Your task to perform on an android device: open app "Reddit" (install if not already installed) and go to login screen Image 0: 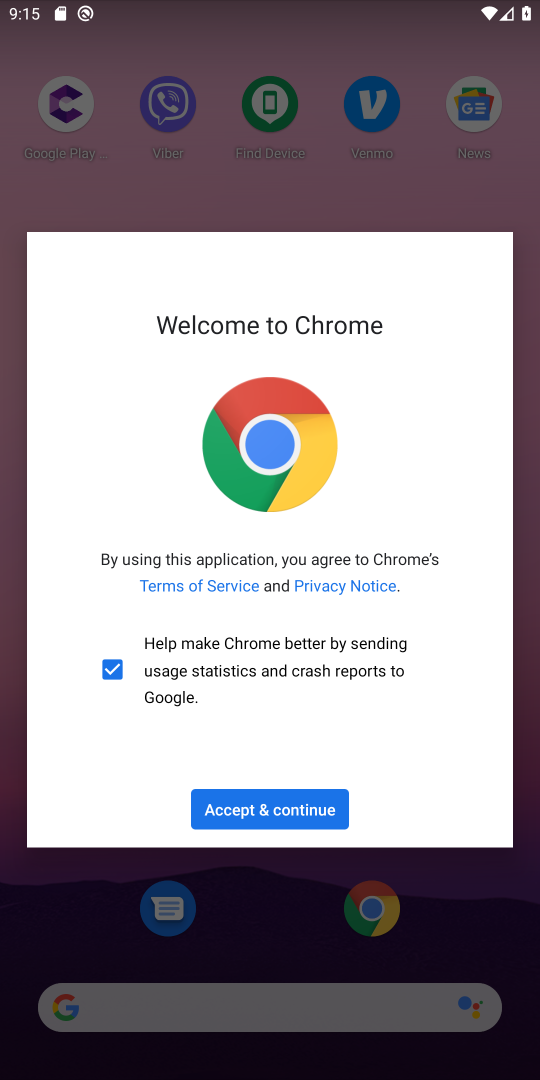
Step 0: click (310, 882)
Your task to perform on an android device: open app "Reddit" (install if not already installed) and go to login screen Image 1: 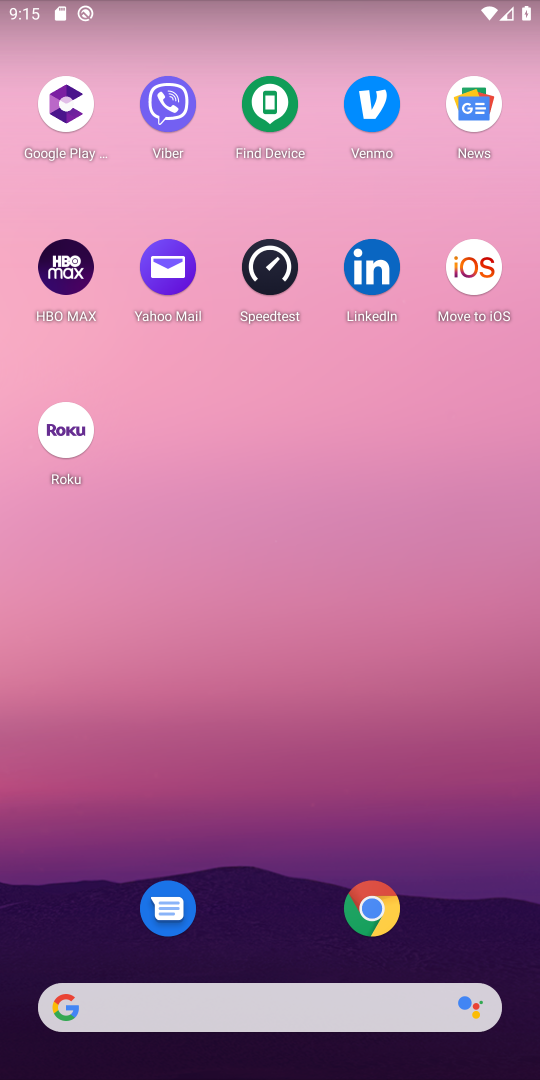
Step 1: drag from (275, 830) to (276, 5)
Your task to perform on an android device: open app "Reddit" (install if not already installed) and go to login screen Image 2: 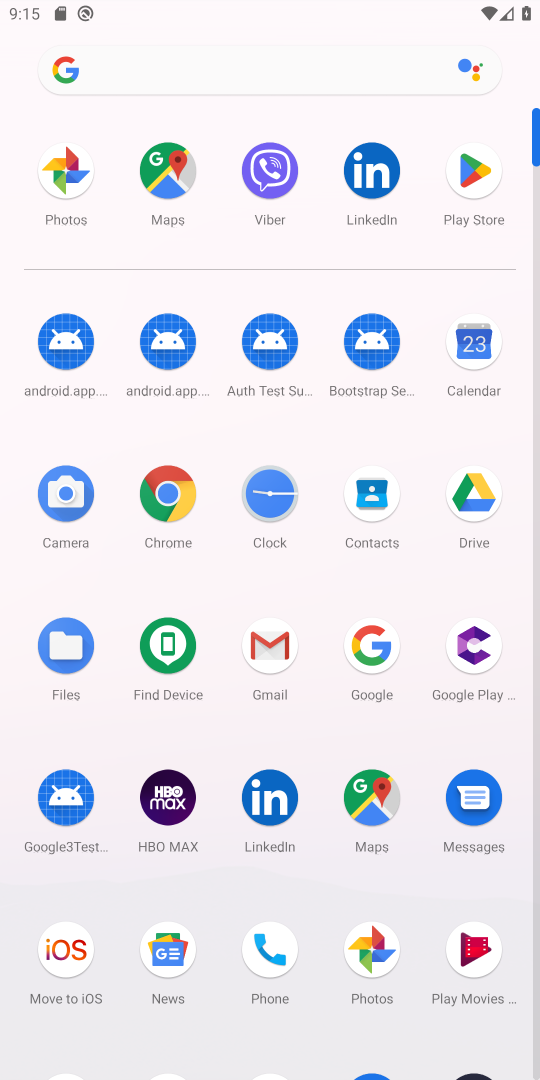
Step 2: click (463, 184)
Your task to perform on an android device: open app "Reddit" (install if not already installed) and go to login screen Image 3: 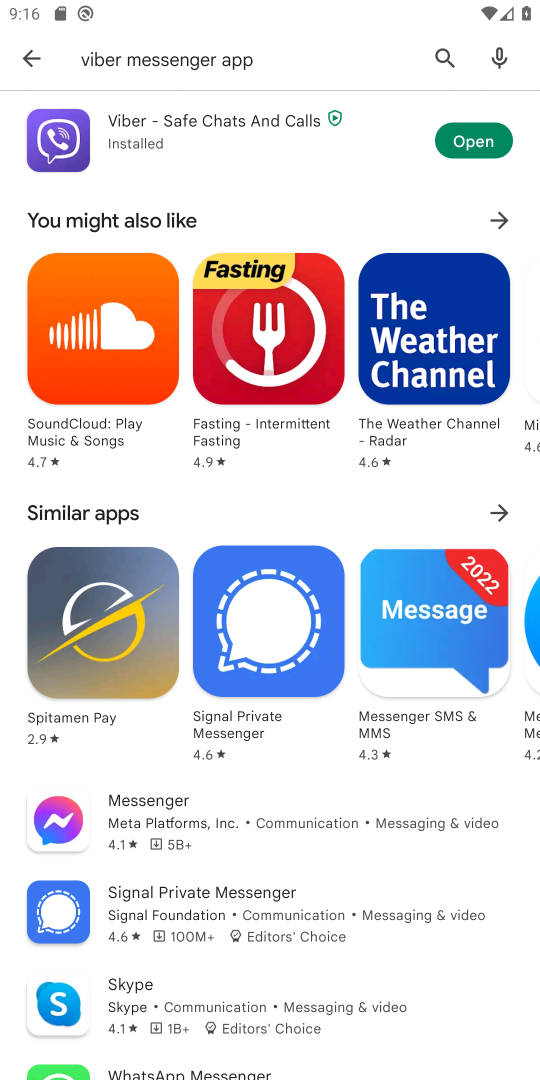
Step 3: click (192, 56)
Your task to perform on an android device: open app "Reddit" (install if not already installed) and go to login screen Image 4: 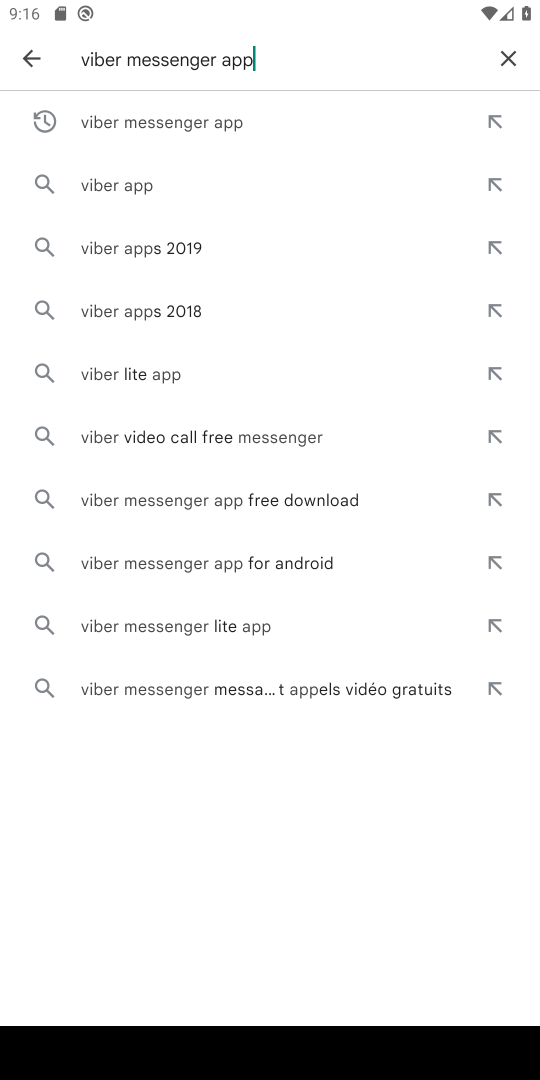
Step 4: click (513, 49)
Your task to perform on an android device: open app "Reddit" (install if not already installed) and go to login screen Image 5: 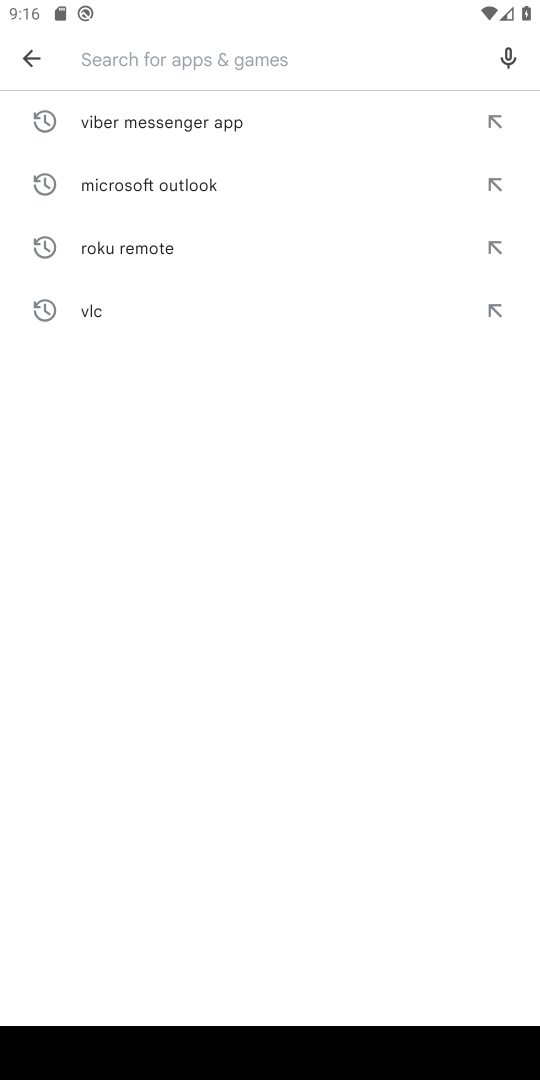
Step 5: type "reddit"
Your task to perform on an android device: open app "Reddit" (install if not already installed) and go to login screen Image 6: 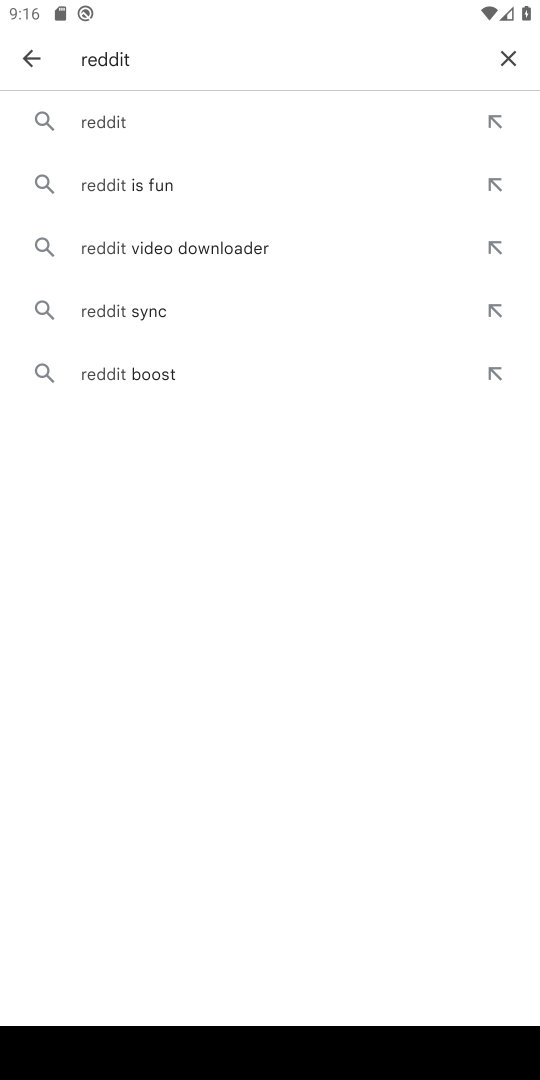
Step 6: click (144, 116)
Your task to perform on an android device: open app "Reddit" (install if not already installed) and go to login screen Image 7: 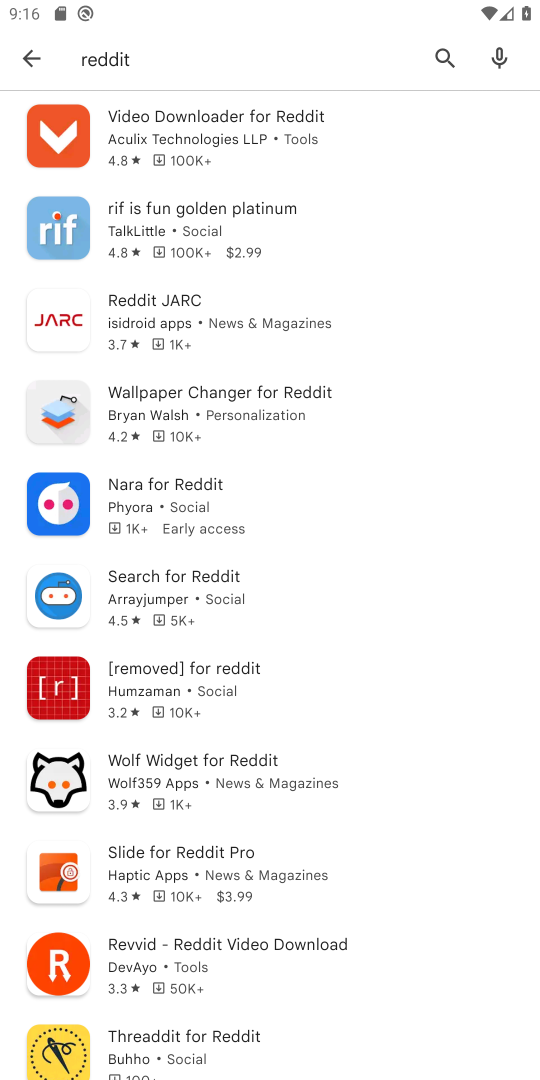
Step 7: task complete